Your task to perform on an android device: Open battery settings Image 0: 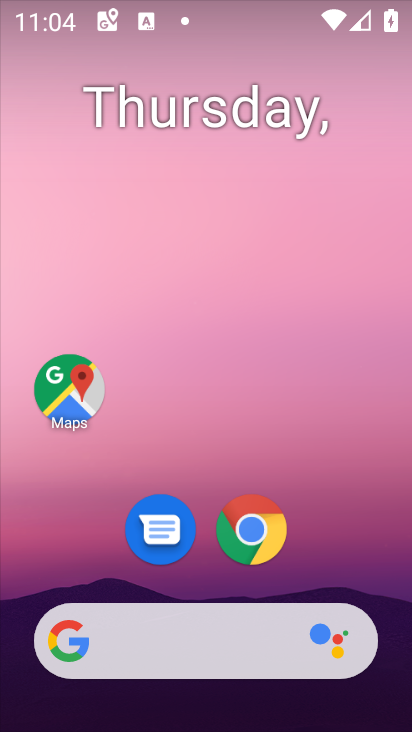
Step 0: drag from (146, 537) to (142, 210)
Your task to perform on an android device: Open battery settings Image 1: 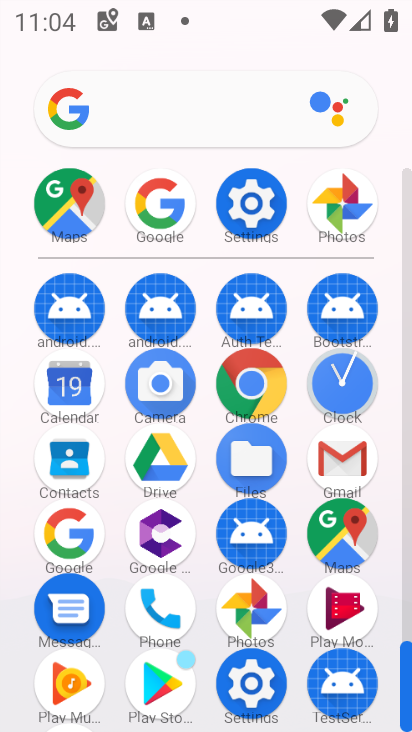
Step 1: click (244, 215)
Your task to perform on an android device: Open battery settings Image 2: 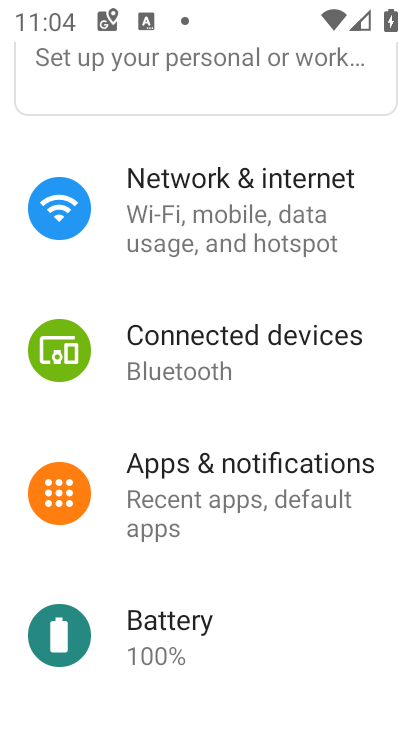
Step 2: drag from (209, 454) to (216, 340)
Your task to perform on an android device: Open battery settings Image 3: 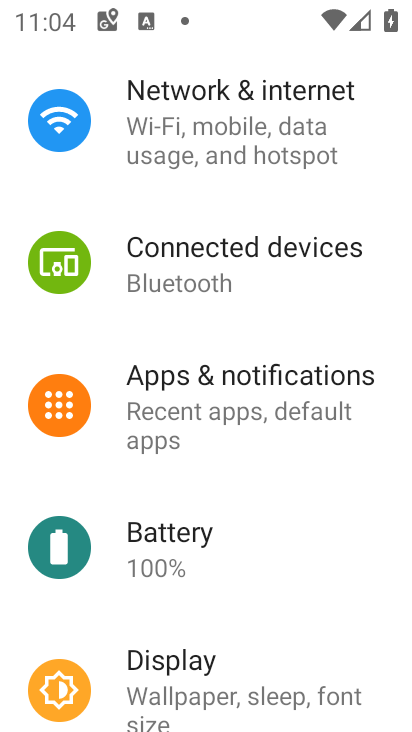
Step 3: click (168, 532)
Your task to perform on an android device: Open battery settings Image 4: 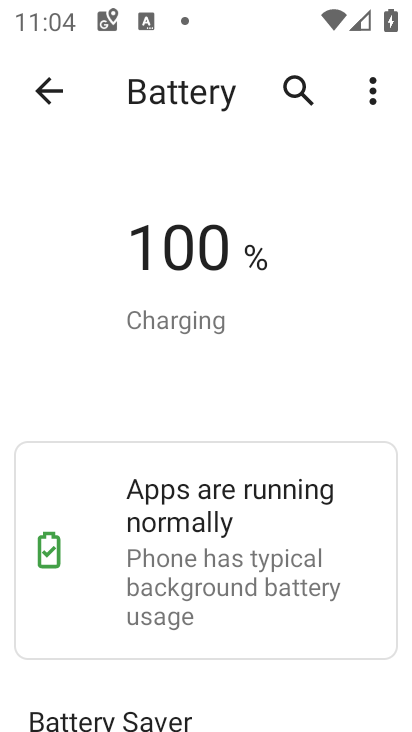
Step 4: task complete